Your task to perform on an android device: Go to wifi settings Image 0: 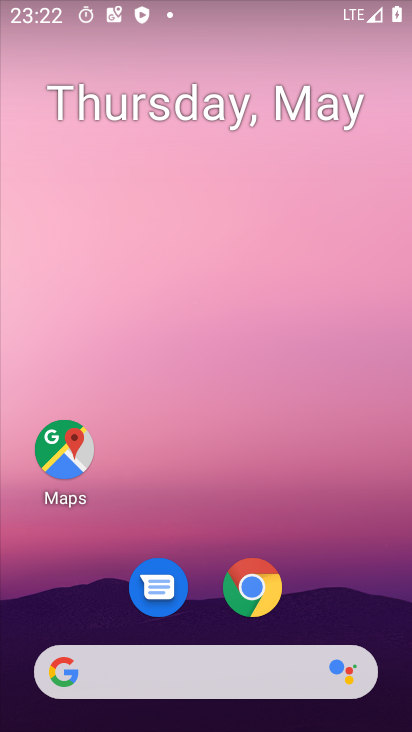
Step 0: drag from (367, 624) to (344, 0)
Your task to perform on an android device: Go to wifi settings Image 1: 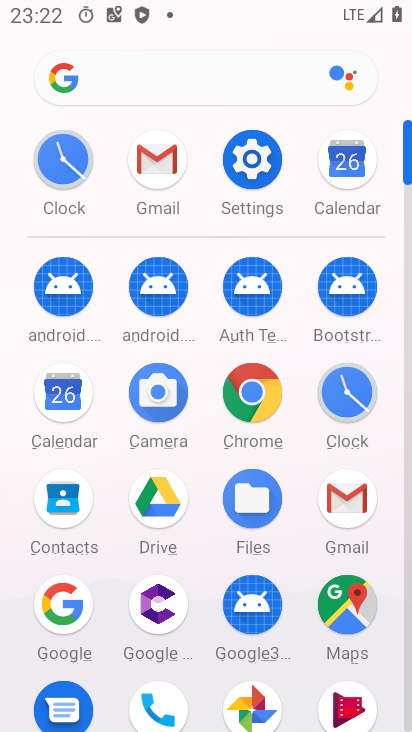
Step 1: click (243, 148)
Your task to perform on an android device: Go to wifi settings Image 2: 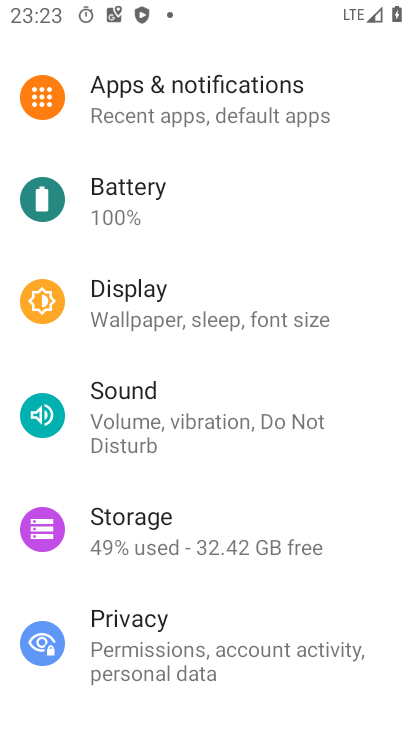
Step 2: drag from (243, 148) to (246, 503)
Your task to perform on an android device: Go to wifi settings Image 3: 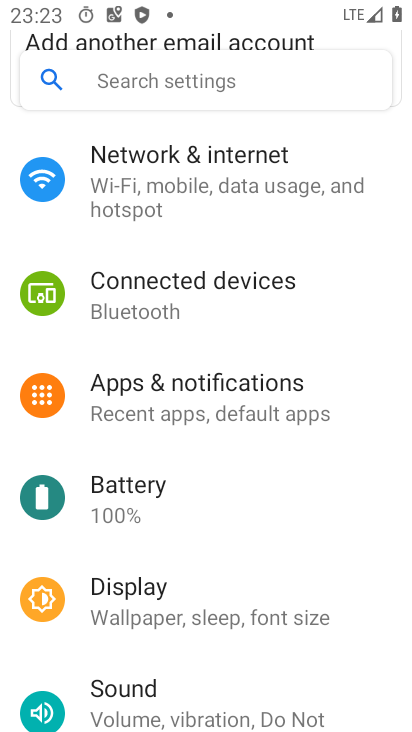
Step 3: click (187, 190)
Your task to perform on an android device: Go to wifi settings Image 4: 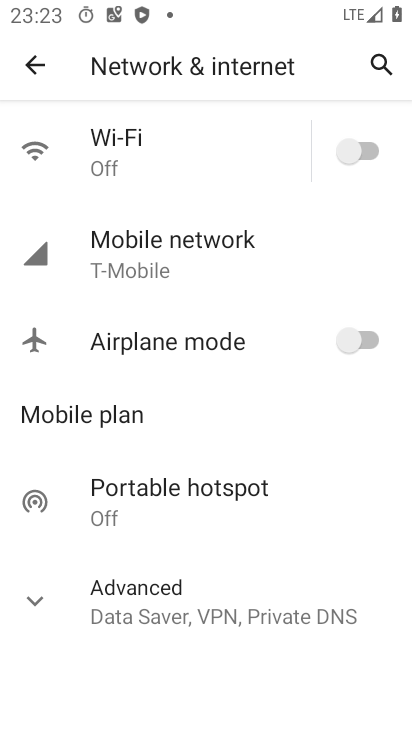
Step 4: click (100, 149)
Your task to perform on an android device: Go to wifi settings Image 5: 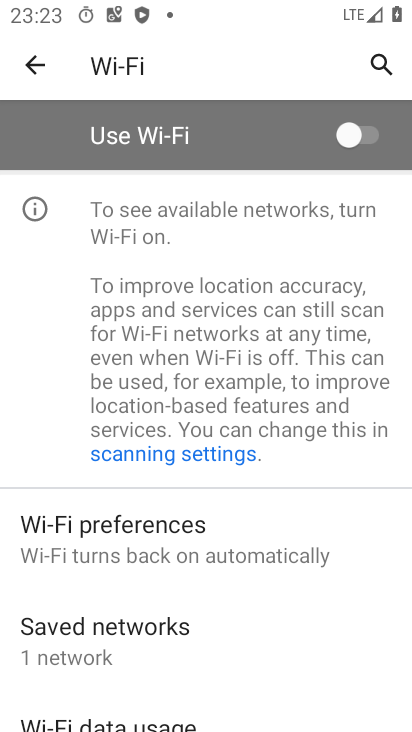
Step 5: task complete